Your task to perform on an android device: Open Amazon Image 0: 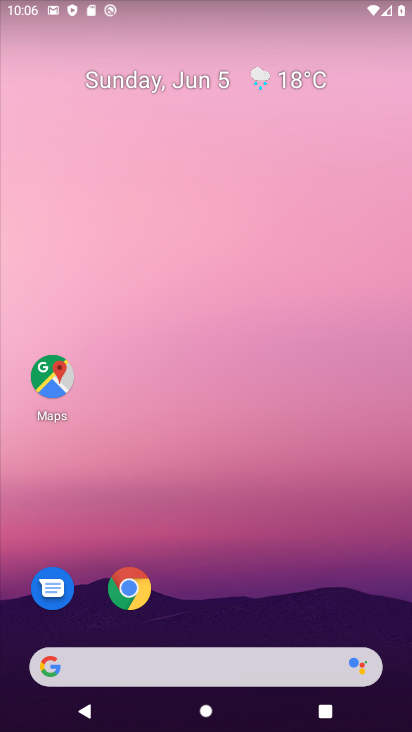
Step 0: click (313, 175)
Your task to perform on an android device: Open Amazon Image 1: 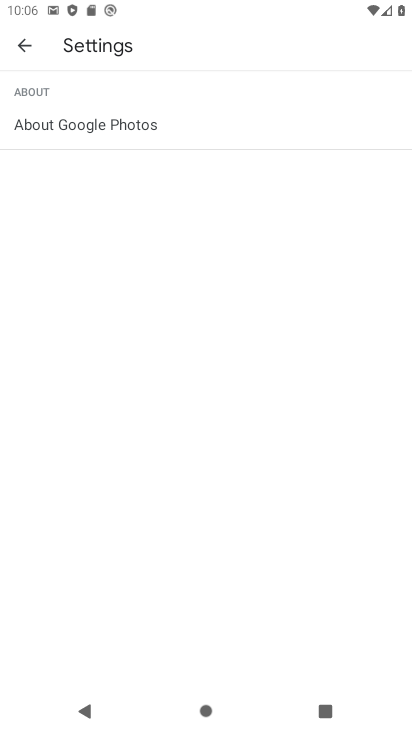
Step 1: press home button
Your task to perform on an android device: Open Amazon Image 2: 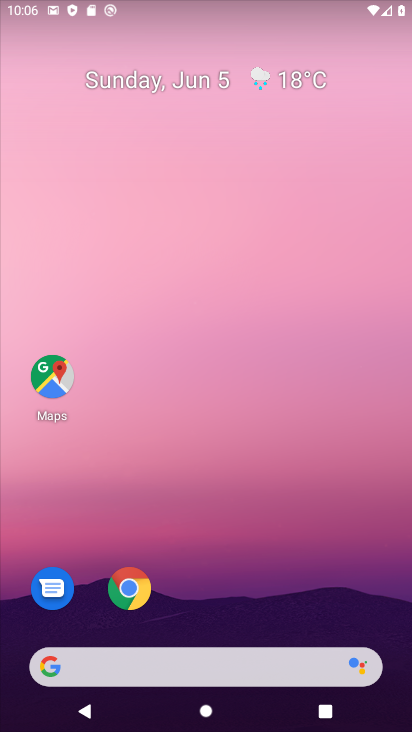
Step 2: drag from (353, 532) to (324, 118)
Your task to perform on an android device: Open Amazon Image 3: 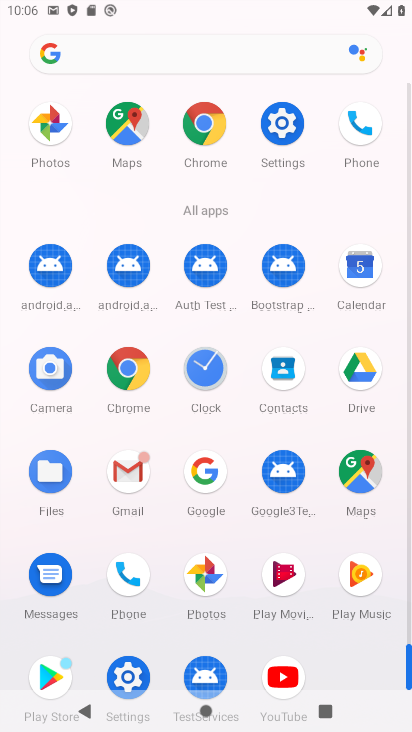
Step 3: click (127, 368)
Your task to perform on an android device: Open Amazon Image 4: 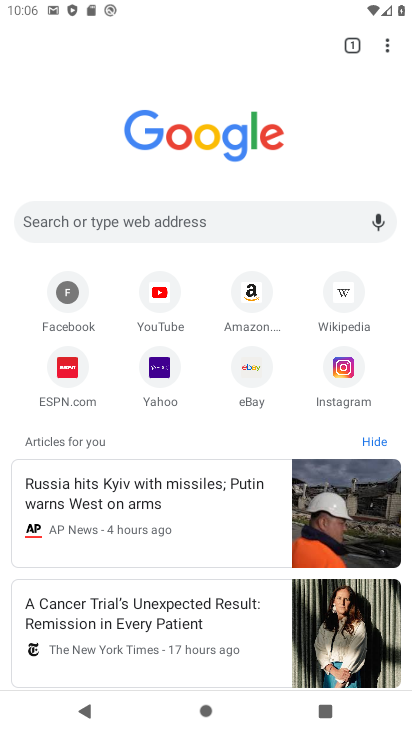
Step 4: click (264, 220)
Your task to perform on an android device: Open Amazon Image 5: 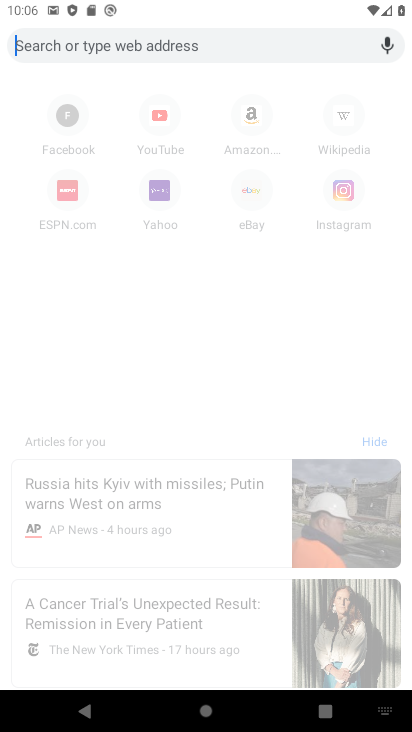
Step 5: click (233, 142)
Your task to perform on an android device: Open Amazon Image 6: 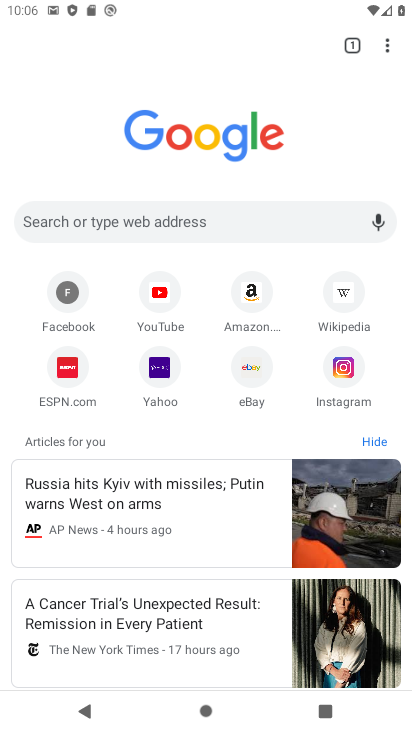
Step 6: click (254, 293)
Your task to perform on an android device: Open Amazon Image 7: 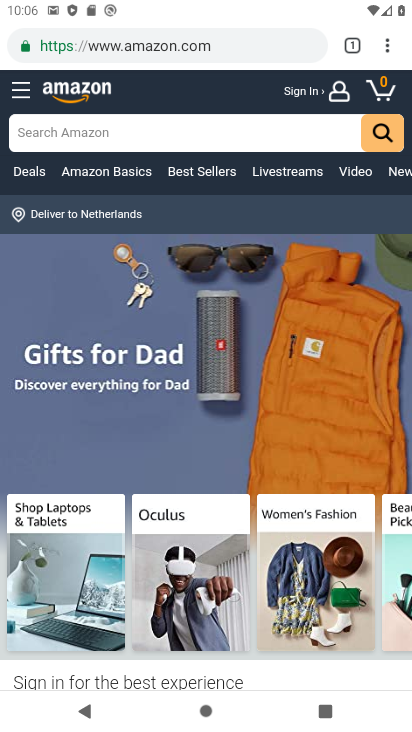
Step 7: task complete